Your task to perform on an android device: turn off data saver in the chrome app Image 0: 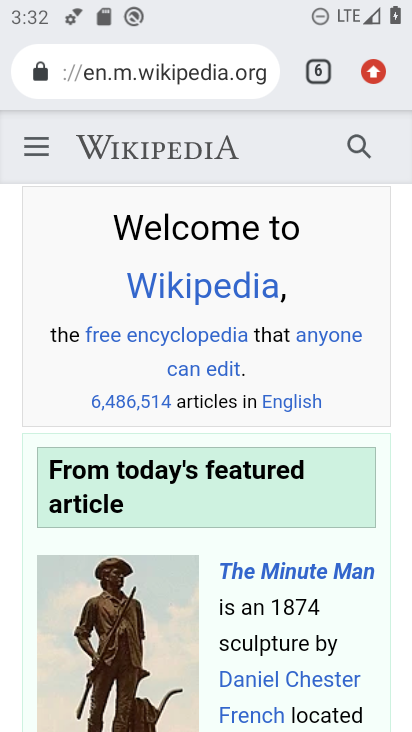
Step 0: click (374, 74)
Your task to perform on an android device: turn off data saver in the chrome app Image 1: 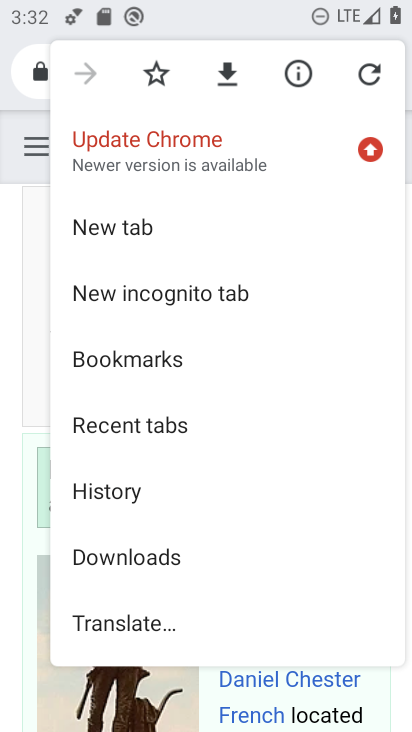
Step 1: drag from (276, 561) to (278, 166)
Your task to perform on an android device: turn off data saver in the chrome app Image 2: 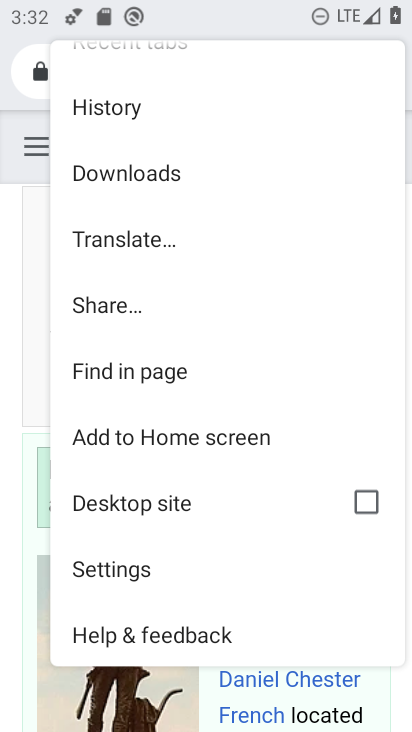
Step 2: drag from (257, 512) to (226, 219)
Your task to perform on an android device: turn off data saver in the chrome app Image 3: 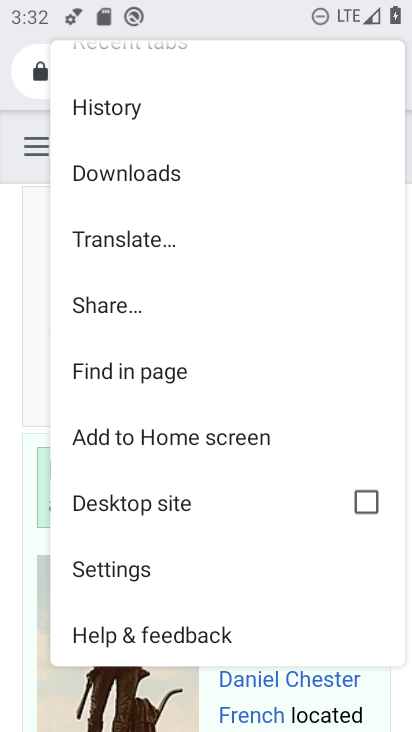
Step 3: click (137, 576)
Your task to perform on an android device: turn off data saver in the chrome app Image 4: 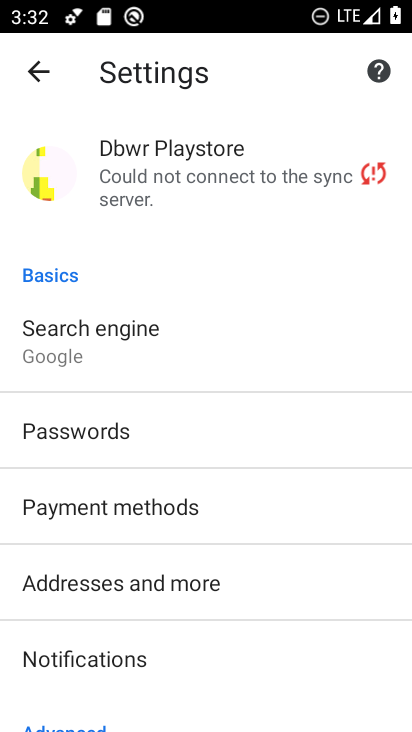
Step 4: drag from (259, 578) to (250, 221)
Your task to perform on an android device: turn off data saver in the chrome app Image 5: 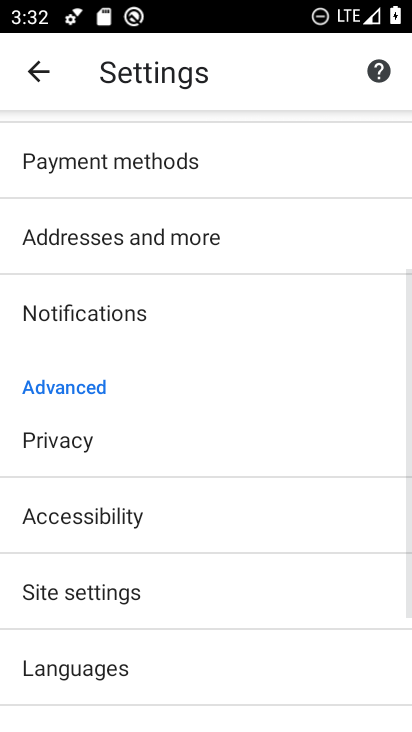
Step 5: drag from (281, 562) to (254, 249)
Your task to perform on an android device: turn off data saver in the chrome app Image 6: 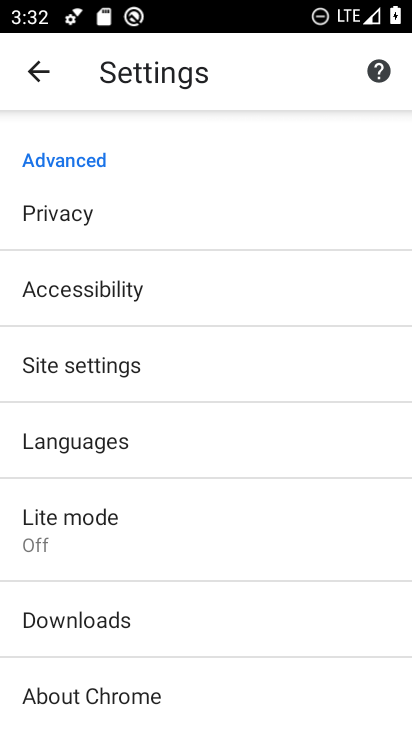
Step 6: click (68, 520)
Your task to perform on an android device: turn off data saver in the chrome app Image 7: 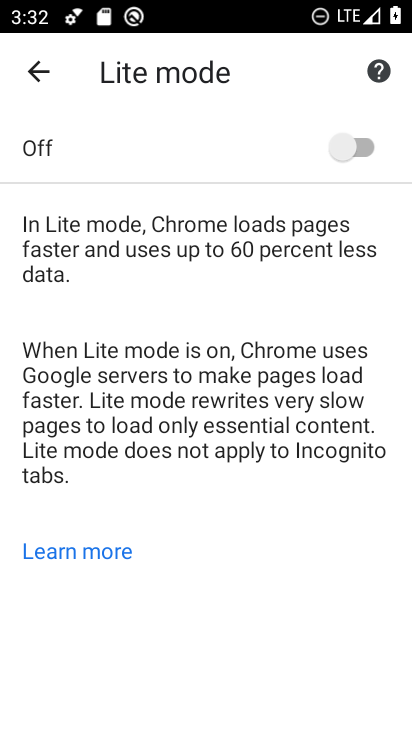
Step 7: task complete